Your task to perform on an android device: turn off translation in the chrome app Image 0: 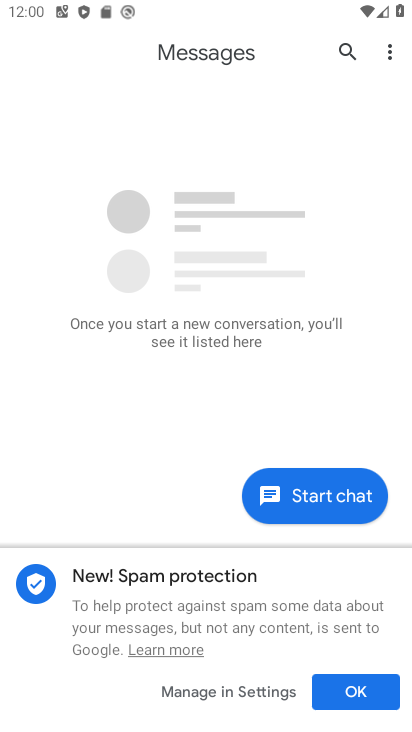
Step 0: press home button
Your task to perform on an android device: turn off translation in the chrome app Image 1: 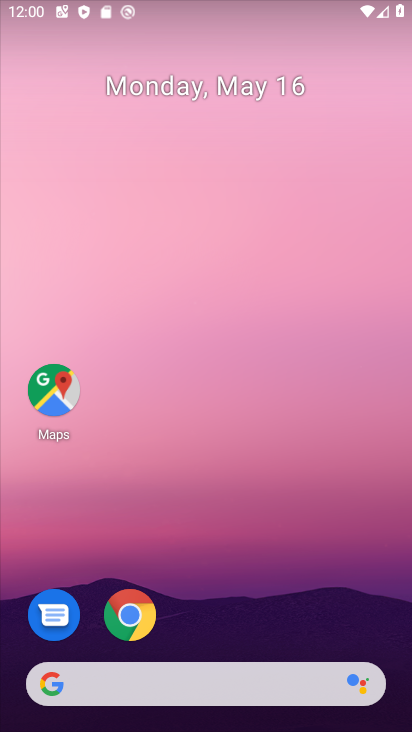
Step 1: drag from (360, 620) to (346, 205)
Your task to perform on an android device: turn off translation in the chrome app Image 2: 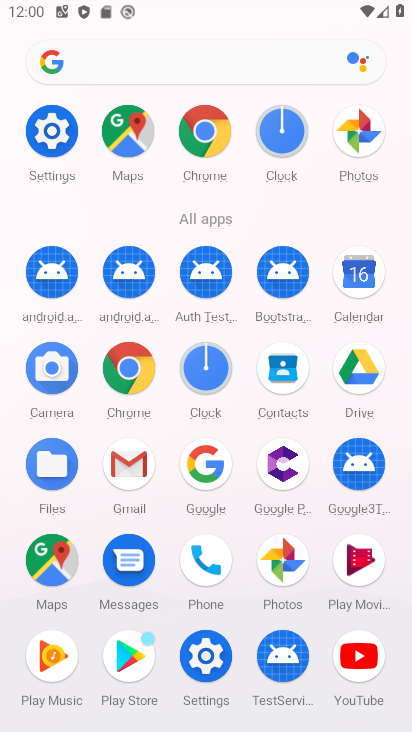
Step 2: click (118, 389)
Your task to perform on an android device: turn off translation in the chrome app Image 3: 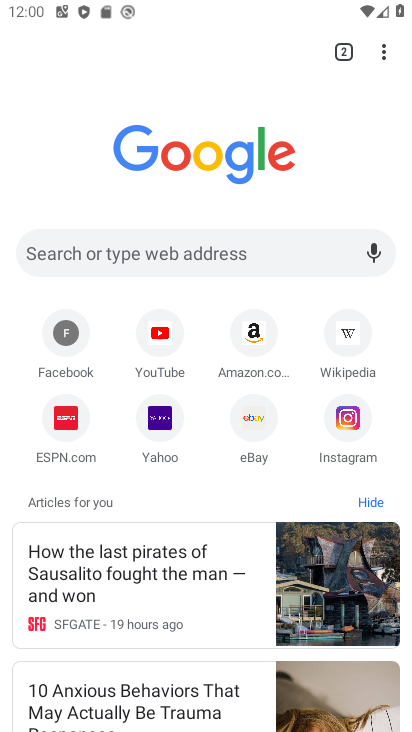
Step 3: click (387, 57)
Your task to perform on an android device: turn off translation in the chrome app Image 4: 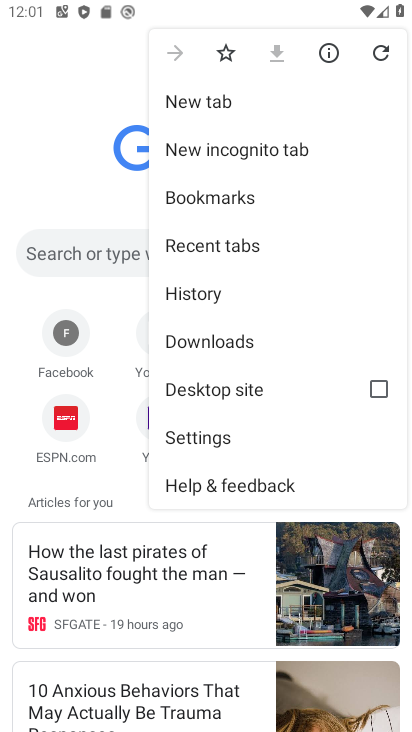
Step 4: click (247, 434)
Your task to perform on an android device: turn off translation in the chrome app Image 5: 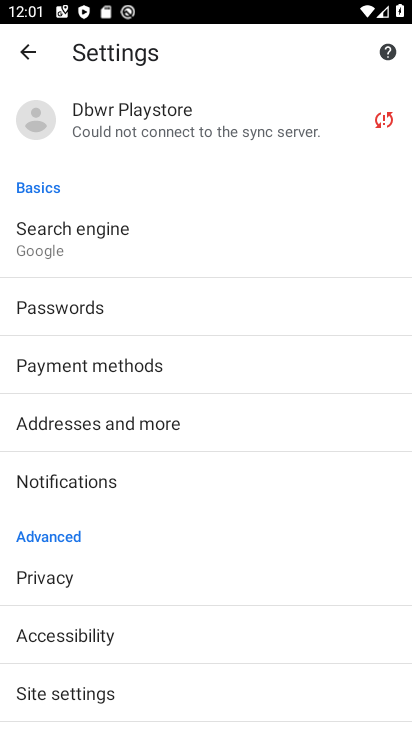
Step 5: drag from (208, 646) to (213, 332)
Your task to perform on an android device: turn off translation in the chrome app Image 6: 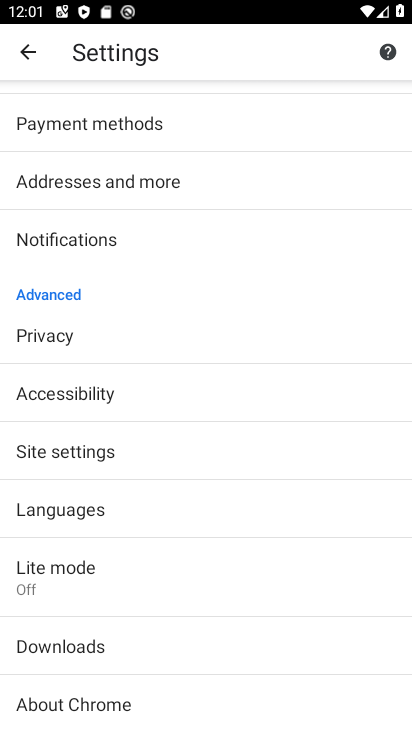
Step 6: click (107, 506)
Your task to perform on an android device: turn off translation in the chrome app Image 7: 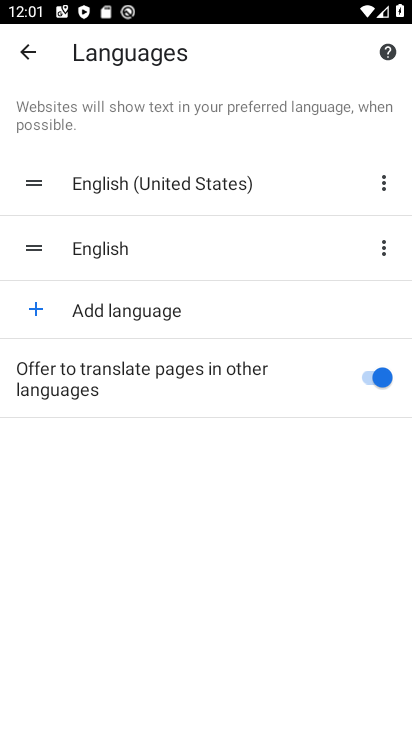
Step 7: click (383, 387)
Your task to perform on an android device: turn off translation in the chrome app Image 8: 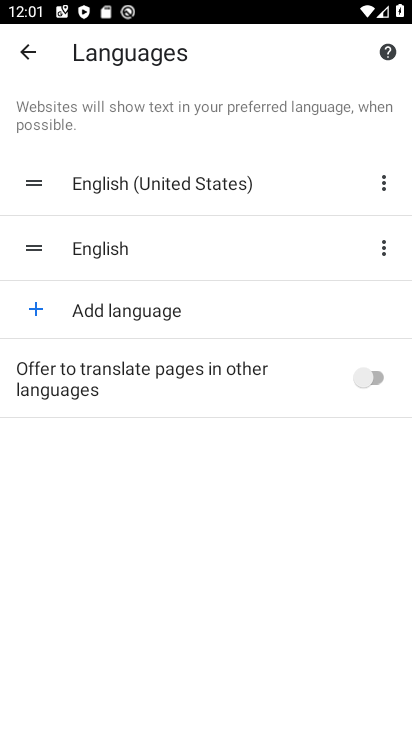
Step 8: task complete